Your task to perform on an android device: Go to eBay Image 0: 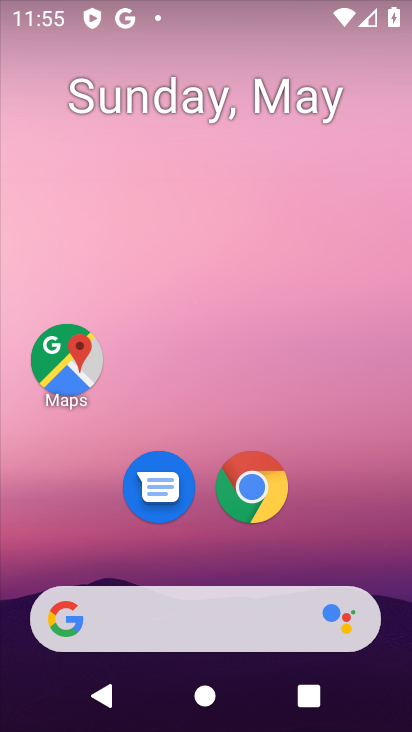
Step 0: click (251, 485)
Your task to perform on an android device: Go to eBay Image 1: 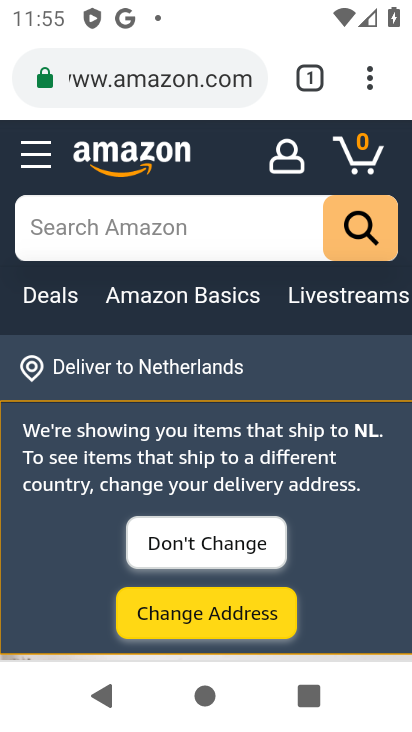
Step 1: click (176, 71)
Your task to perform on an android device: Go to eBay Image 2: 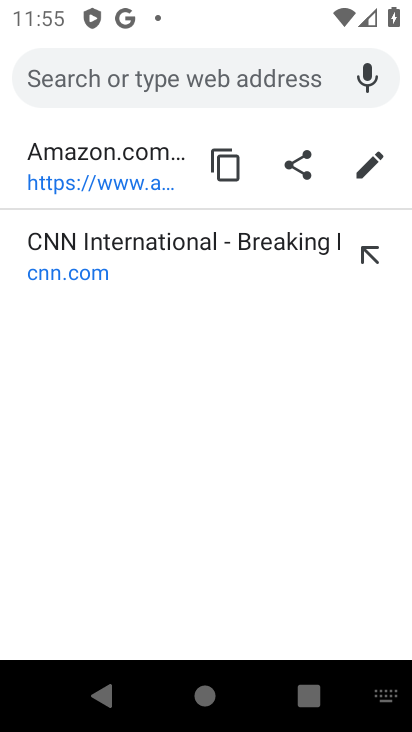
Step 2: type "ebay"
Your task to perform on an android device: Go to eBay Image 3: 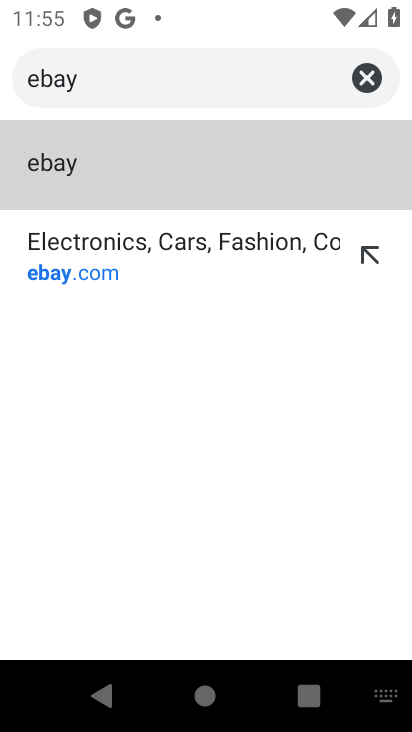
Step 3: click (52, 175)
Your task to perform on an android device: Go to eBay Image 4: 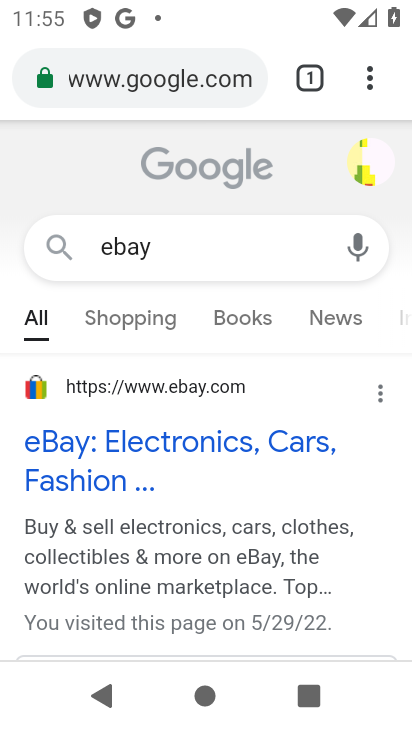
Step 4: click (49, 455)
Your task to perform on an android device: Go to eBay Image 5: 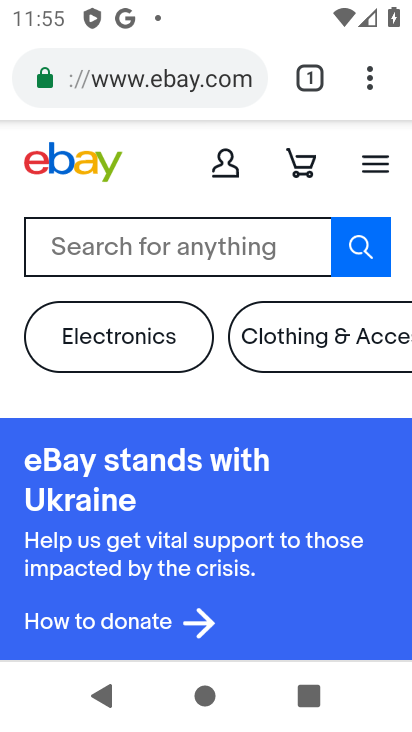
Step 5: task complete